Your task to perform on an android device: add a contact in the contacts app Image 0: 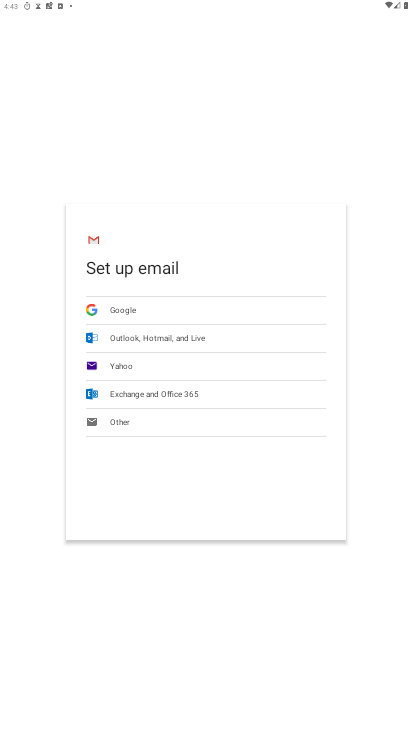
Step 0: press home button
Your task to perform on an android device: add a contact in the contacts app Image 1: 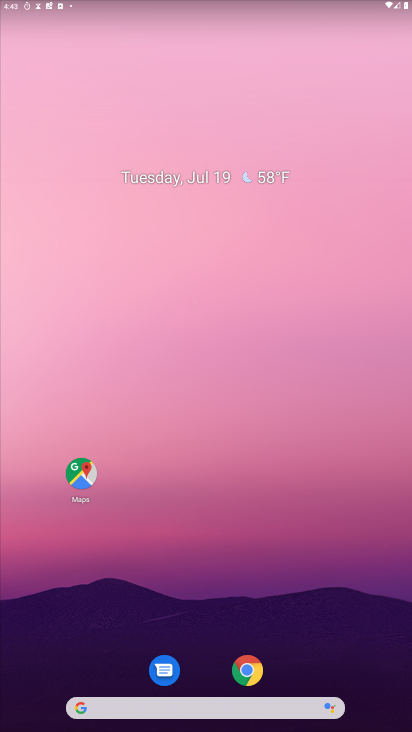
Step 1: drag from (194, 692) to (198, 3)
Your task to perform on an android device: add a contact in the contacts app Image 2: 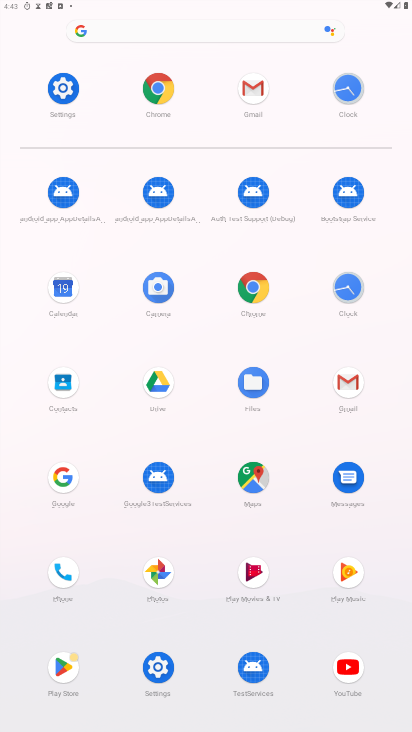
Step 2: click (68, 386)
Your task to perform on an android device: add a contact in the contacts app Image 3: 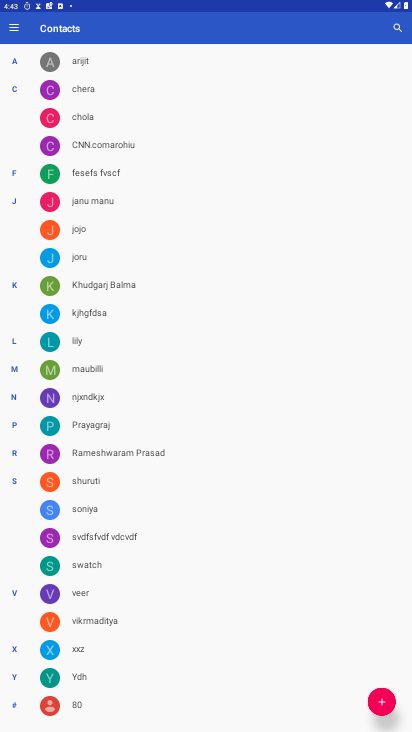
Step 3: click (397, 696)
Your task to perform on an android device: add a contact in the contacts app Image 4: 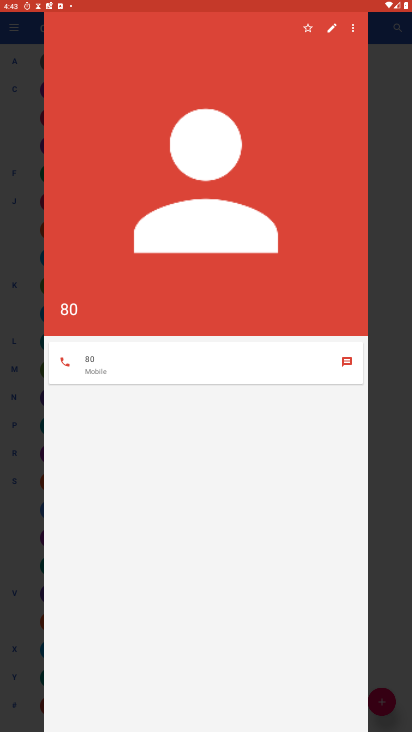
Step 4: press back button
Your task to perform on an android device: add a contact in the contacts app Image 5: 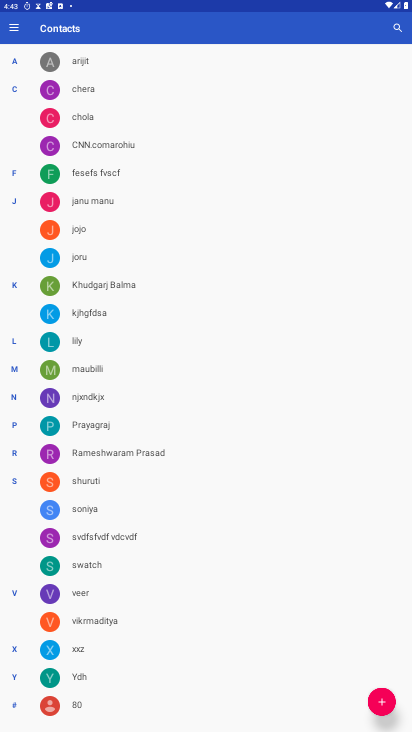
Step 5: click (372, 699)
Your task to perform on an android device: add a contact in the contacts app Image 6: 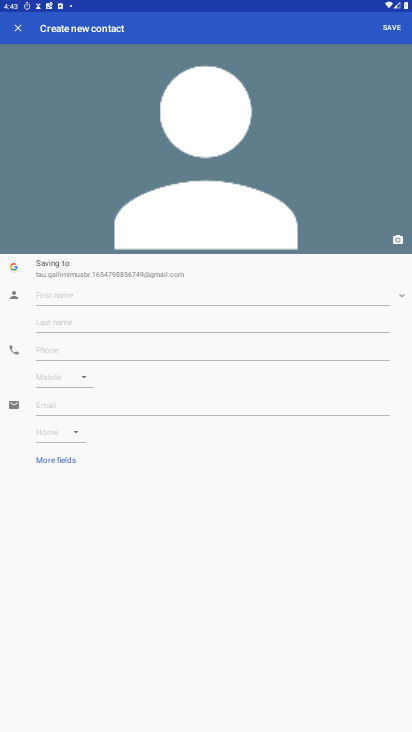
Step 6: click (160, 284)
Your task to perform on an android device: add a contact in the contacts app Image 7: 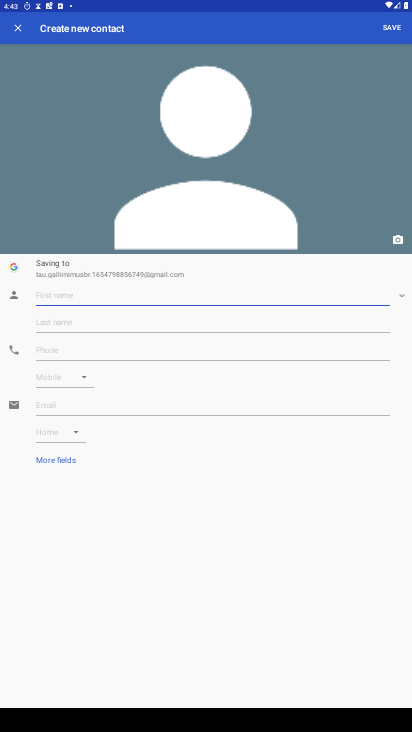
Step 7: type "sushi"
Your task to perform on an android device: add a contact in the contacts app Image 8: 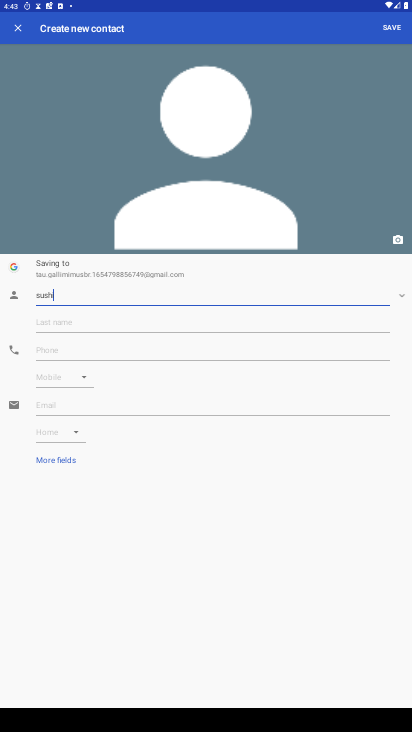
Step 8: click (62, 341)
Your task to perform on an android device: add a contact in the contacts app Image 9: 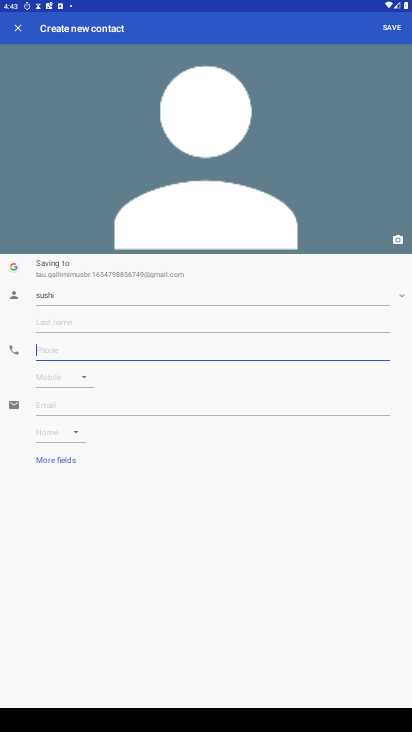
Step 9: type "9872134323"
Your task to perform on an android device: add a contact in the contacts app Image 10: 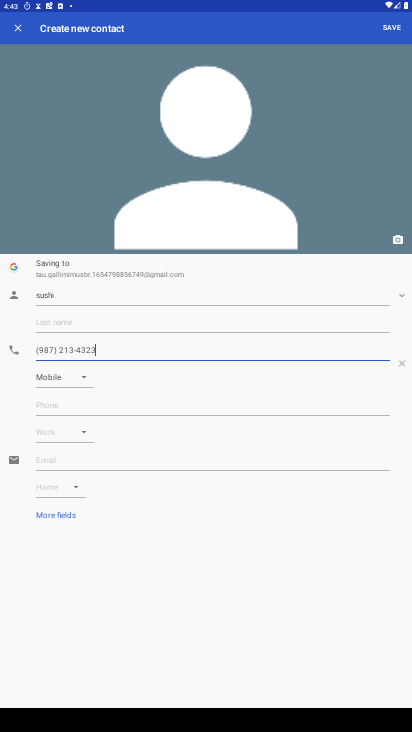
Step 10: click (402, 28)
Your task to perform on an android device: add a contact in the contacts app Image 11: 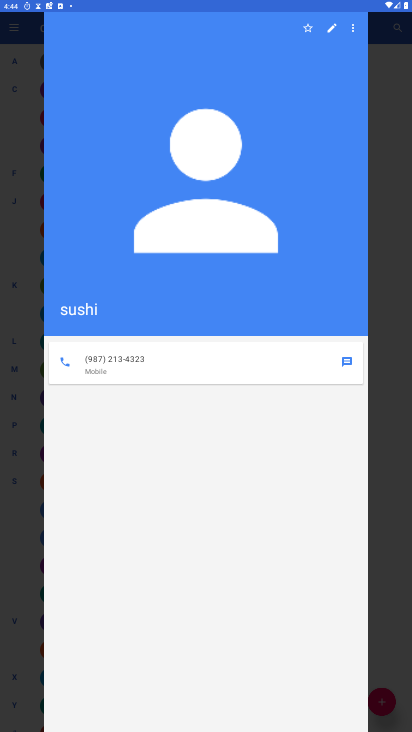
Step 11: task complete